Your task to perform on an android device: change the clock style Image 0: 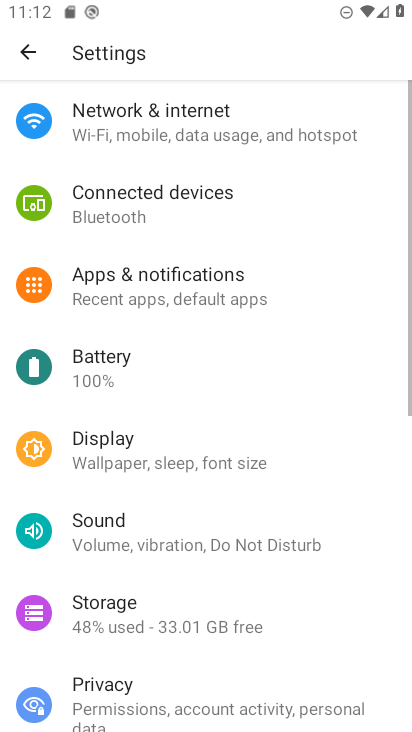
Step 0: press home button
Your task to perform on an android device: change the clock style Image 1: 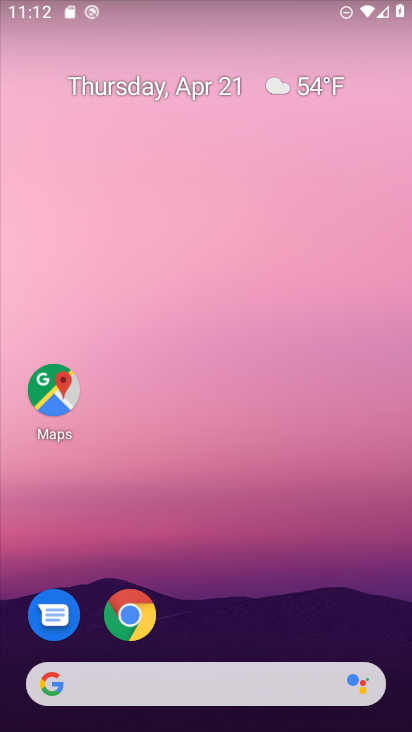
Step 1: drag from (290, 627) to (275, 177)
Your task to perform on an android device: change the clock style Image 2: 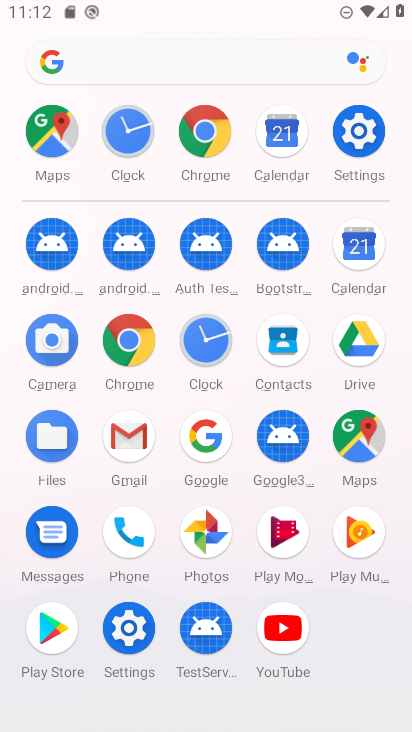
Step 2: click (201, 350)
Your task to perform on an android device: change the clock style Image 3: 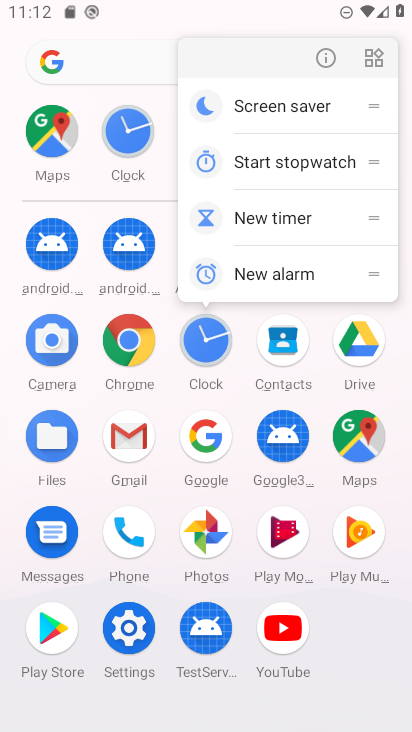
Step 3: click (201, 350)
Your task to perform on an android device: change the clock style Image 4: 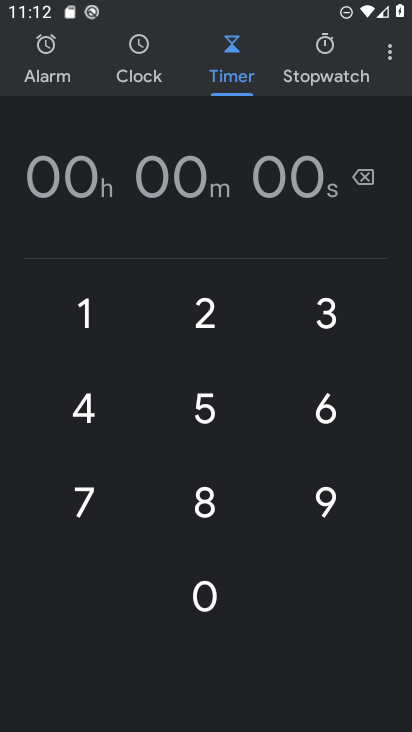
Step 4: click (383, 55)
Your task to perform on an android device: change the clock style Image 5: 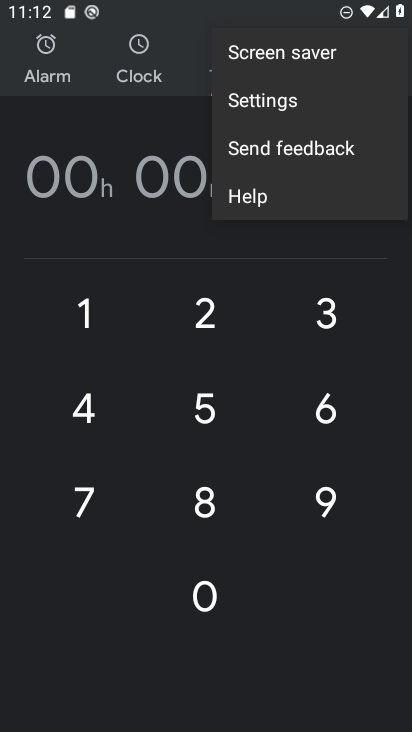
Step 5: click (334, 101)
Your task to perform on an android device: change the clock style Image 6: 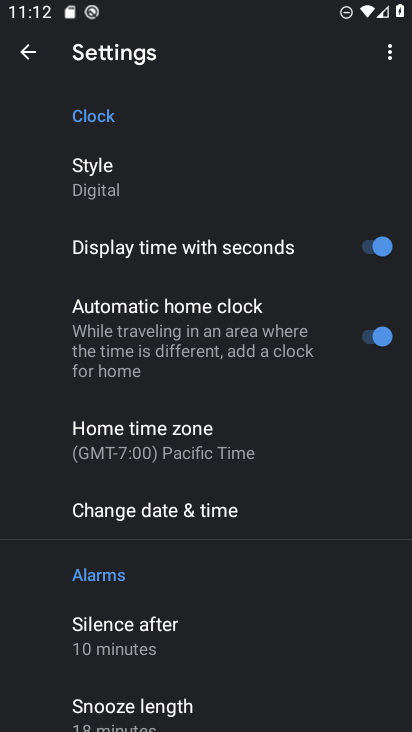
Step 6: click (137, 191)
Your task to perform on an android device: change the clock style Image 7: 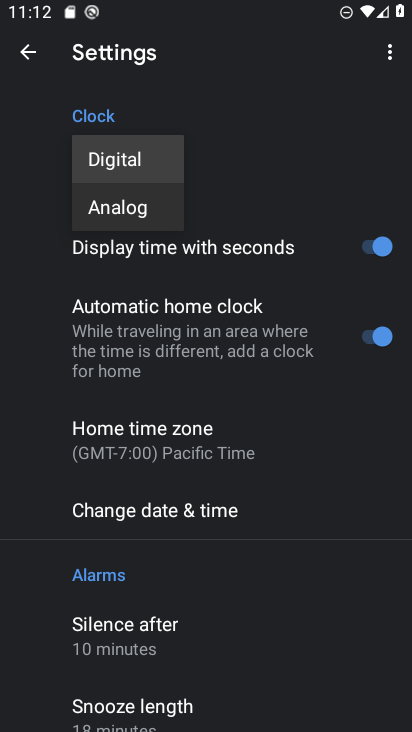
Step 7: click (130, 205)
Your task to perform on an android device: change the clock style Image 8: 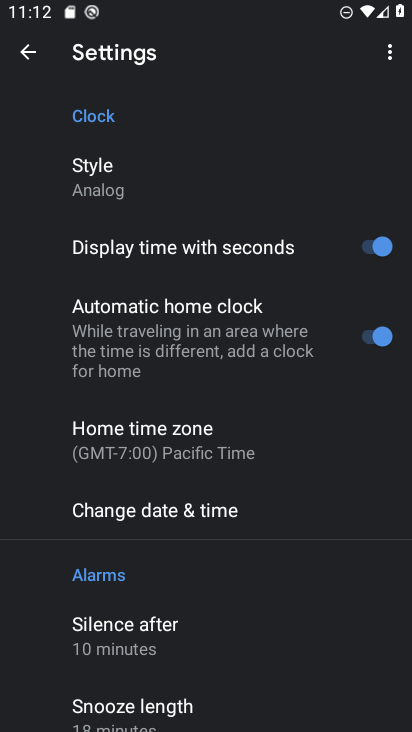
Step 8: task complete